Your task to perform on an android device: turn off priority inbox in the gmail app Image 0: 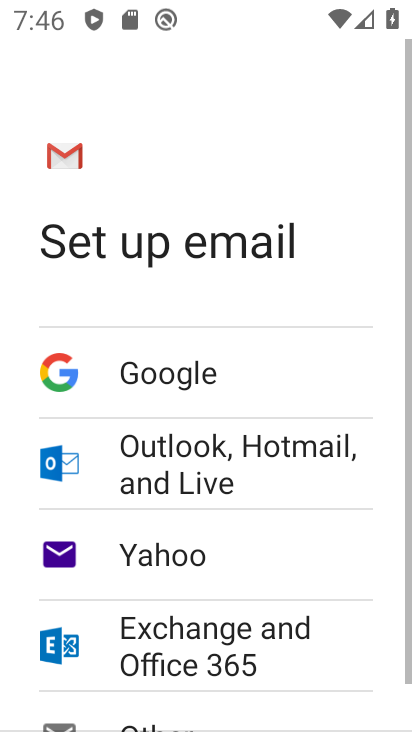
Step 0: press home button
Your task to perform on an android device: turn off priority inbox in the gmail app Image 1: 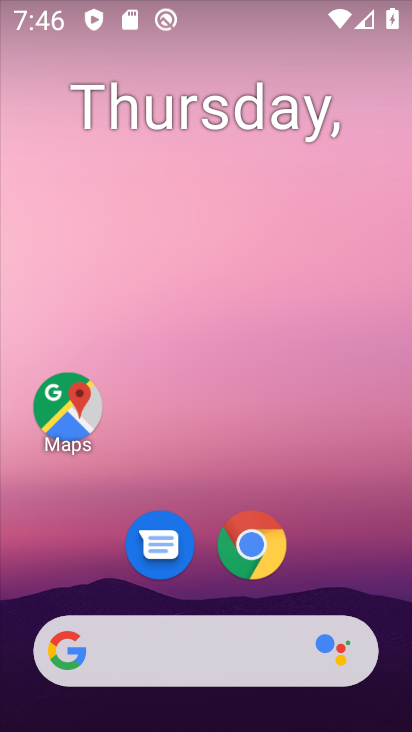
Step 1: drag from (334, 548) to (346, 144)
Your task to perform on an android device: turn off priority inbox in the gmail app Image 2: 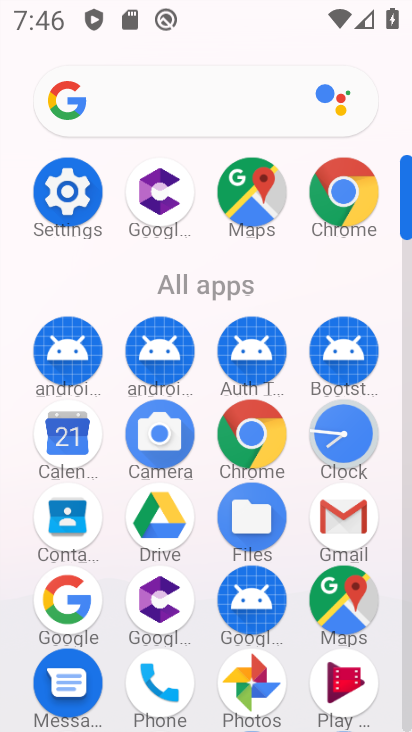
Step 2: drag from (170, 625) to (221, 187)
Your task to perform on an android device: turn off priority inbox in the gmail app Image 3: 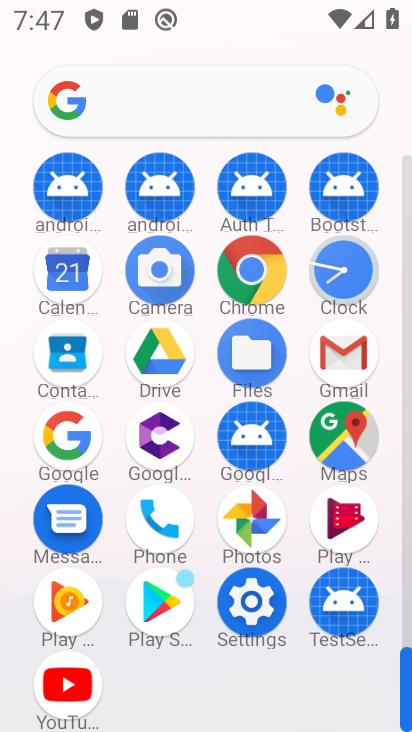
Step 3: click (349, 341)
Your task to perform on an android device: turn off priority inbox in the gmail app Image 4: 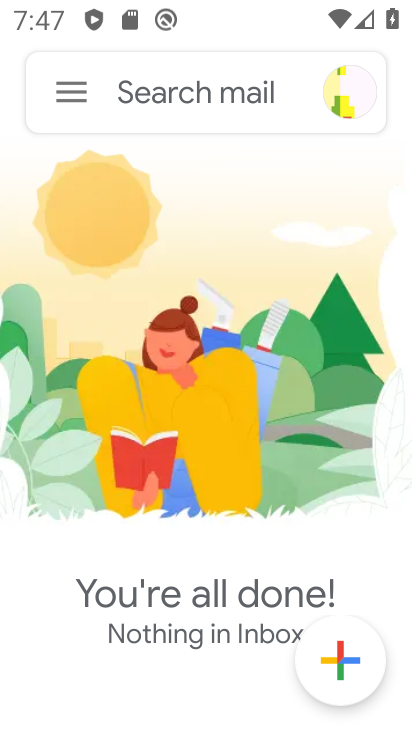
Step 4: click (74, 75)
Your task to perform on an android device: turn off priority inbox in the gmail app Image 5: 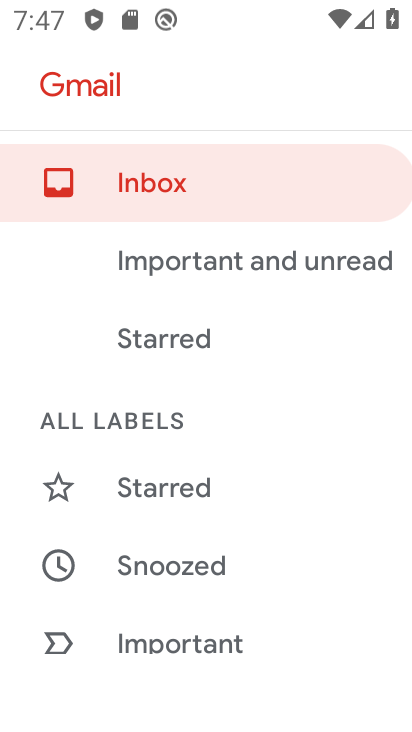
Step 5: drag from (292, 566) to (331, 66)
Your task to perform on an android device: turn off priority inbox in the gmail app Image 6: 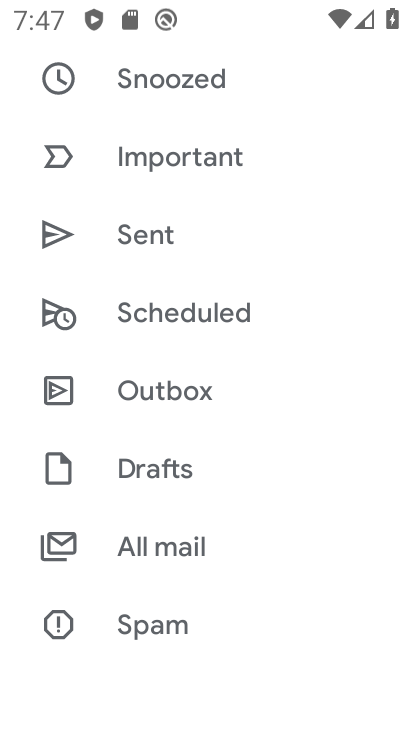
Step 6: drag from (250, 597) to (306, 153)
Your task to perform on an android device: turn off priority inbox in the gmail app Image 7: 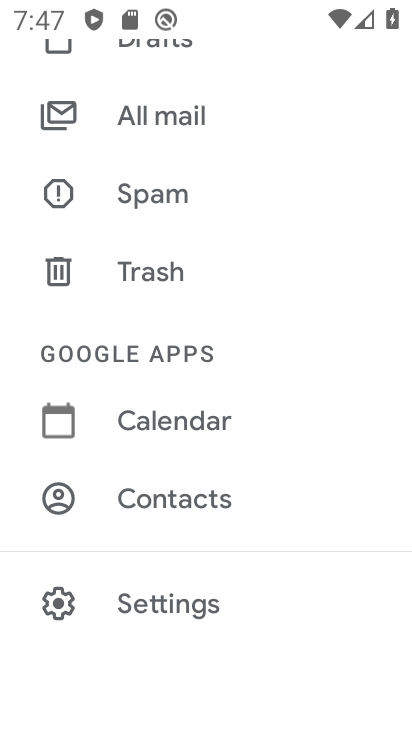
Step 7: click (196, 603)
Your task to perform on an android device: turn off priority inbox in the gmail app Image 8: 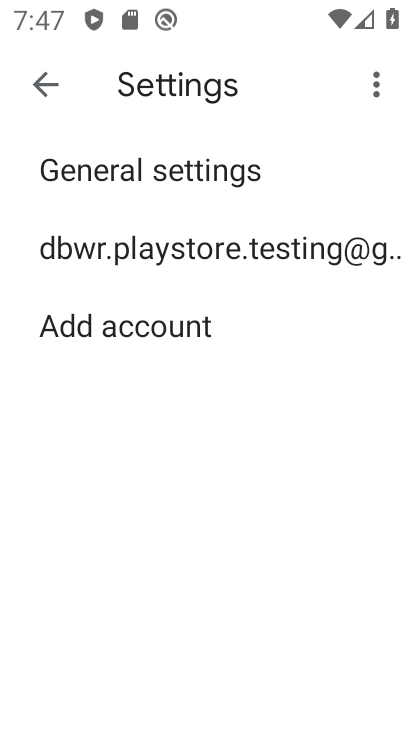
Step 8: click (169, 245)
Your task to perform on an android device: turn off priority inbox in the gmail app Image 9: 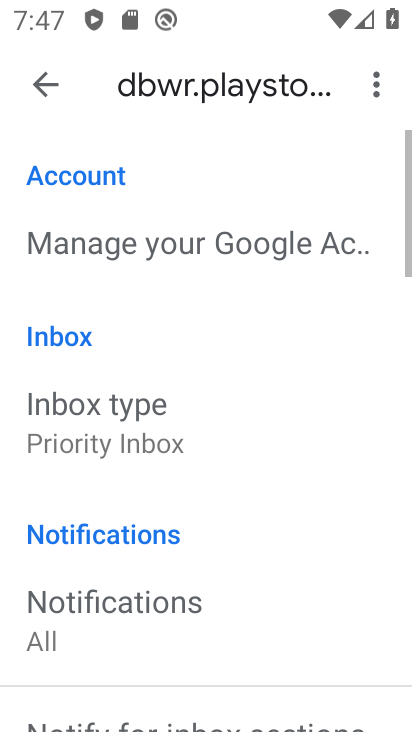
Step 9: drag from (200, 611) to (206, 546)
Your task to perform on an android device: turn off priority inbox in the gmail app Image 10: 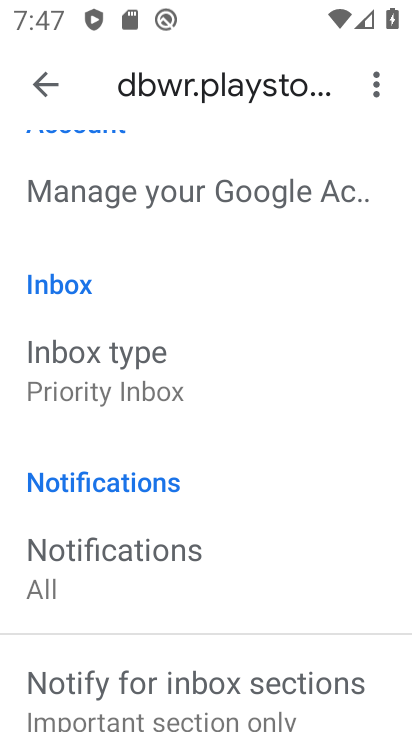
Step 10: click (144, 376)
Your task to perform on an android device: turn off priority inbox in the gmail app Image 11: 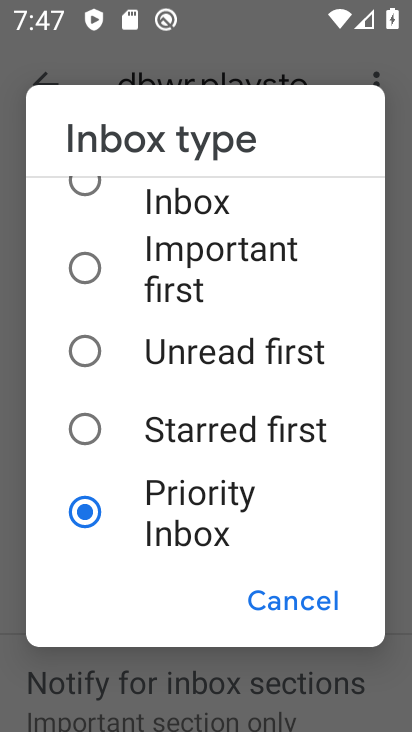
Step 11: drag from (211, 237) to (253, 562)
Your task to perform on an android device: turn off priority inbox in the gmail app Image 12: 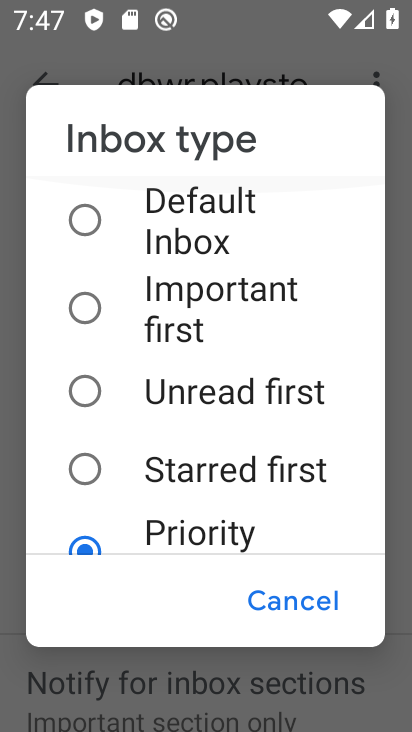
Step 12: click (252, 207)
Your task to perform on an android device: turn off priority inbox in the gmail app Image 13: 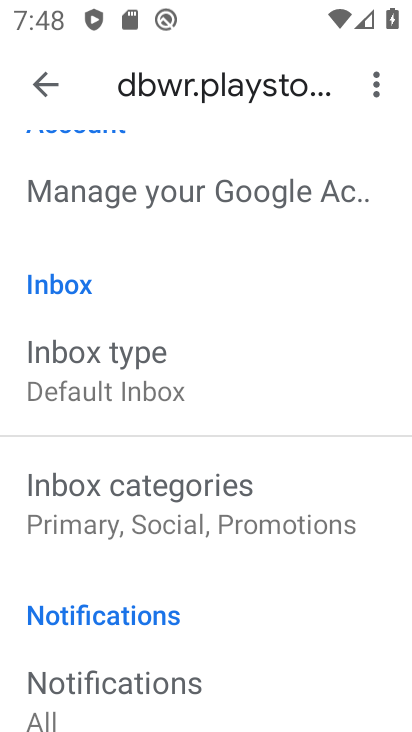
Step 13: task complete